Your task to perform on an android device: allow cookies in the chrome app Image 0: 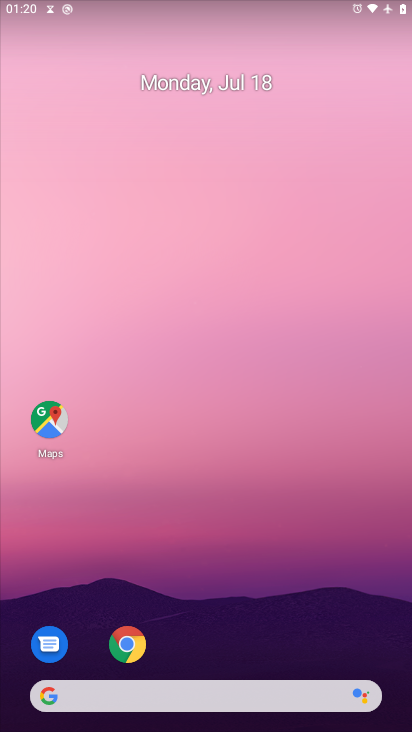
Step 0: press home button
Your task to perform on an android device: allow cookies in the chrome app Image 1: 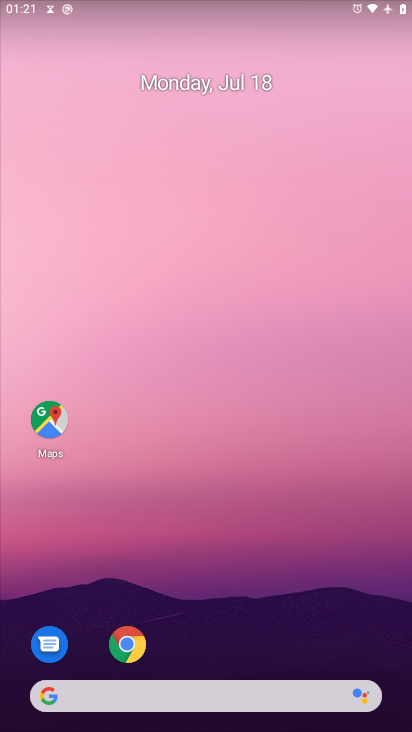
Step 1: drag from (238, 658) to (284, 102)
Your task to perform on an android device: allow cookies in the chrome app Image 2: 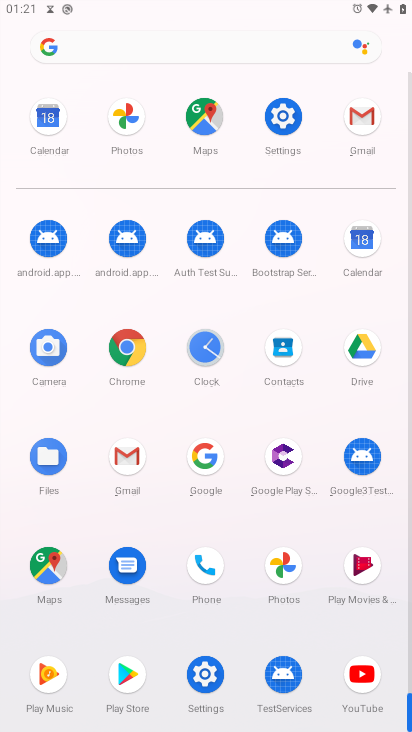
Step 2: click (135, 353)
Your task to perform on an android device: allow cookies in the chrome app Image 3: 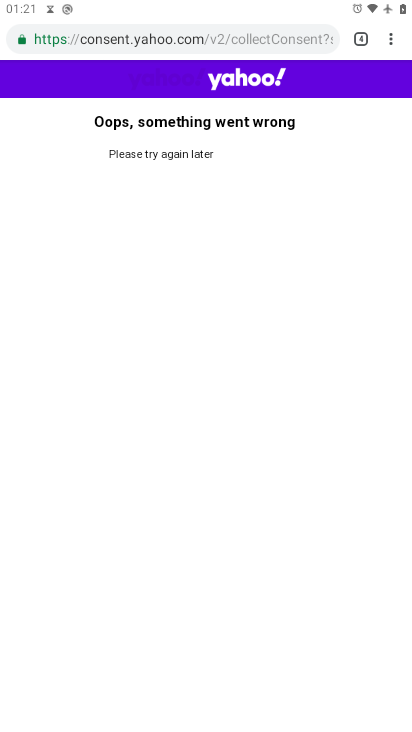
Step 3: drag from (395, 32) to (266, 437)
Your task to perform on an android device: allow cookies in the chrome app Image 4: 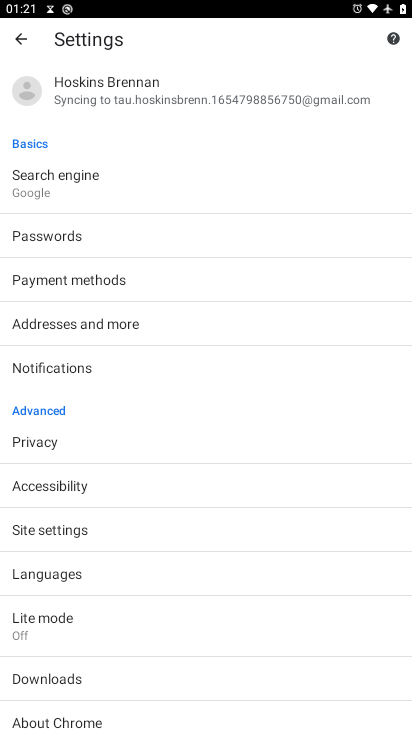
Step 4: click (48, 535)
Your task to perform on an android device: allow cookies in the chrome app Image 5: 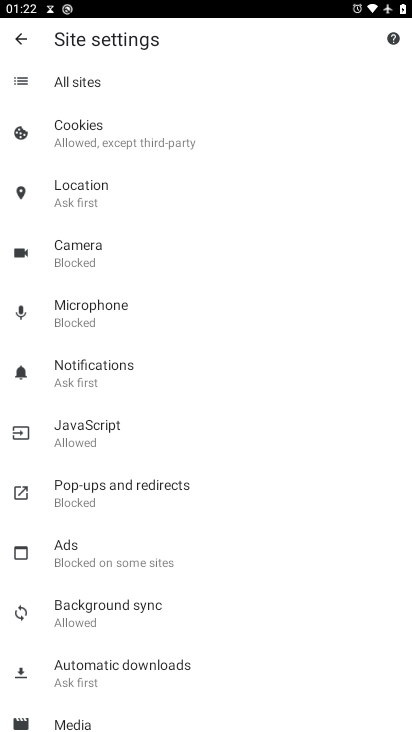
Step 5: click (72, 130)
Your task to perform on an android device: allow cookies in the chrome app Image 6: 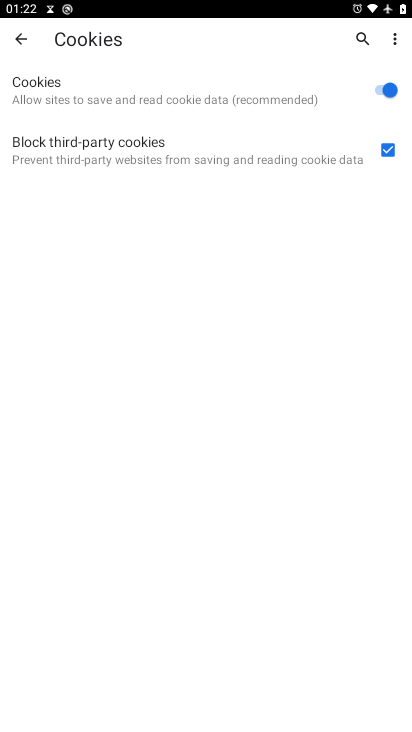
Step 6: task complete